Your task to perform on an android device: Go to display settings Image 0: 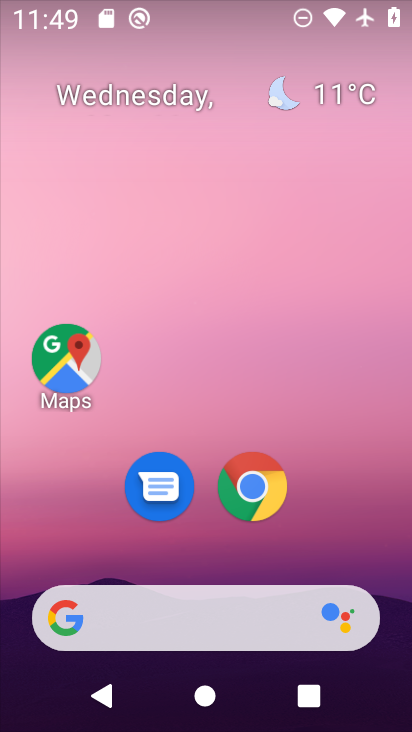
Step 0: drag from (319, 548) to (265, 23)
Your task to perform on an android device: Go to display settings Image 1: 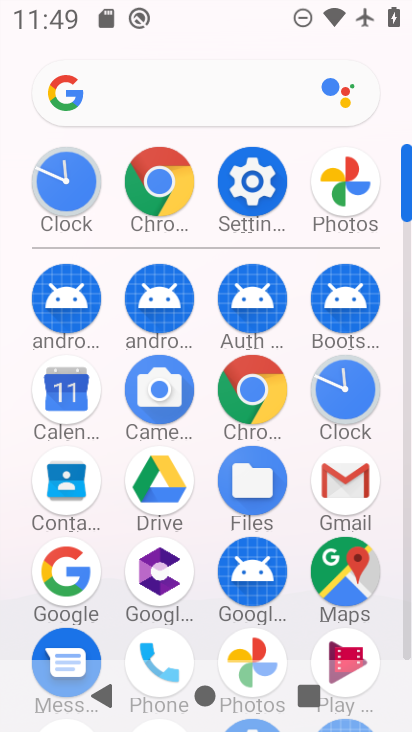
Step 1: click (247, 179)
Your task to perform on an android device: Go to display settings Image 2: 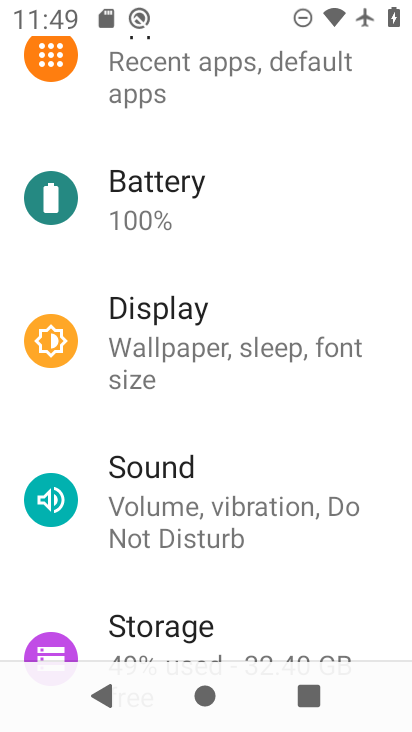
Step 2: click (180, 309)
Your task to perform on an android device: Go to display settings Image 3: 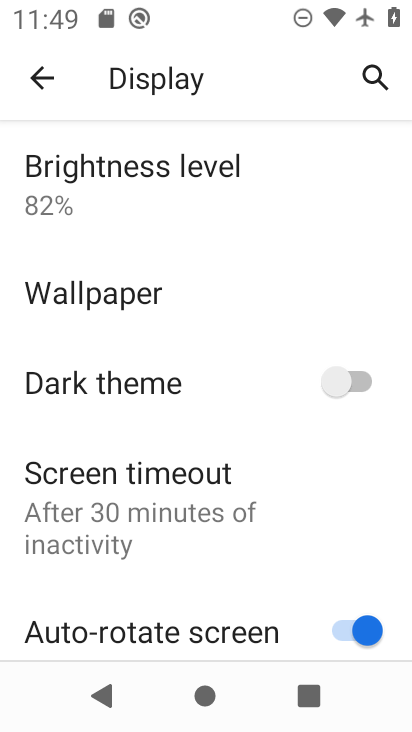
Step 3: drag from (174, 489) to (189, 174)
Your task to perform on an android device: Go to display settings Image 4: 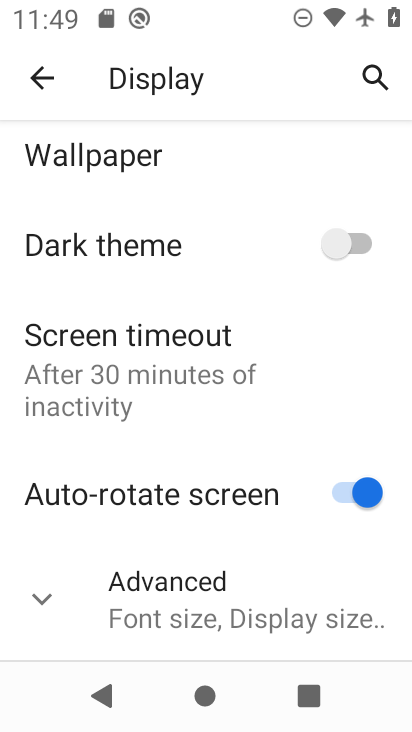
Step 4: click (33, 599)
Your task to perform on an android device: Go to display settings Image 5: 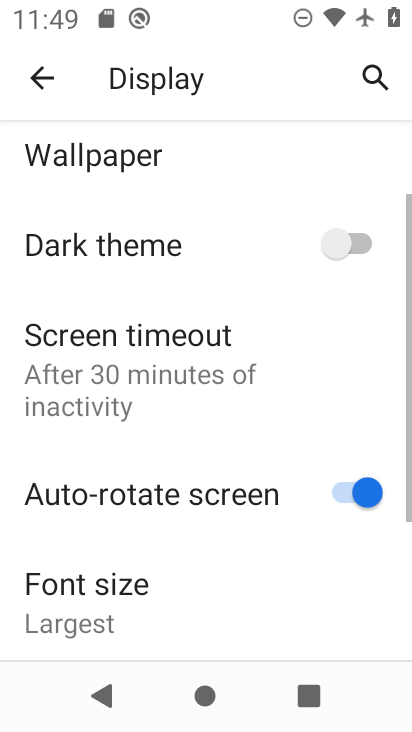
Step 5: task complete